Your task to perform on an android device: Open my contact list Image 0: 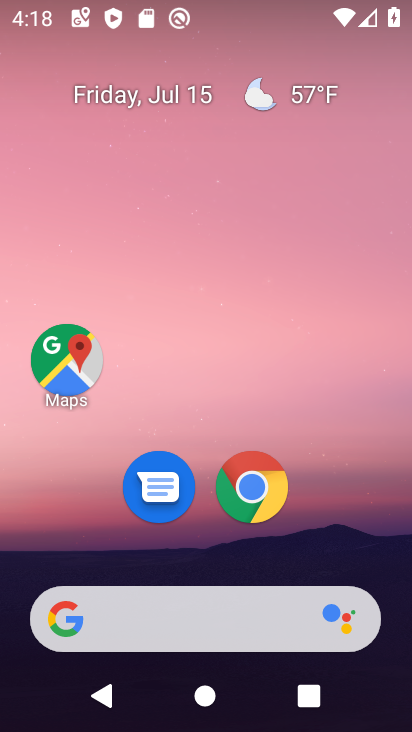
Step 0: drag from (254, 585) to (226, 81)
Your task to perform on an android device: Open my contact list Image 1: 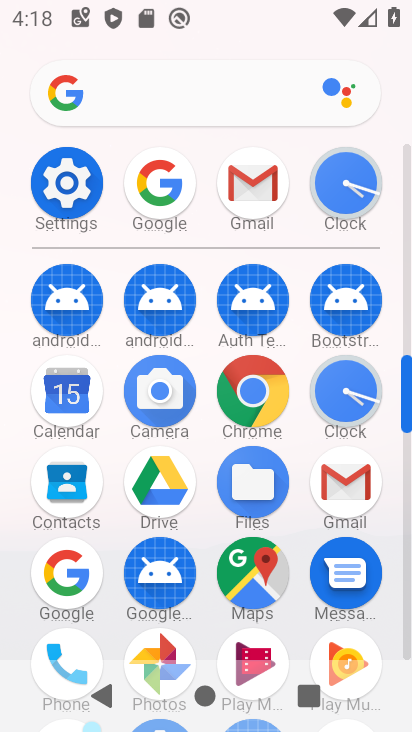
Step 1: click (84, 494)
Your task to perform on an android device: Open my contact list Image 2: 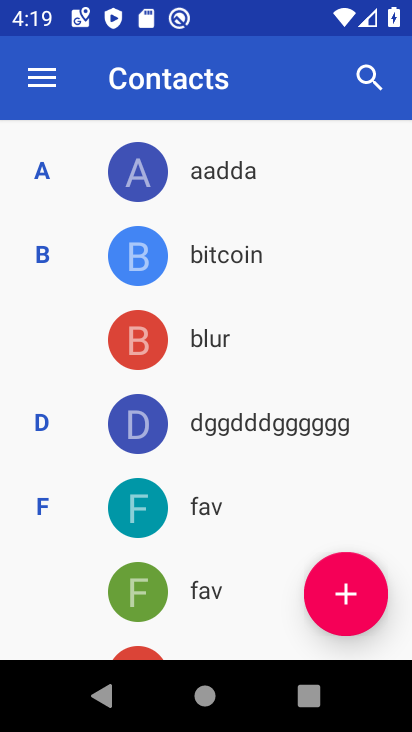
Step 2: task complete